Your task to perform on an android device: open the mobile data screen to see how much data has been used Image 0: 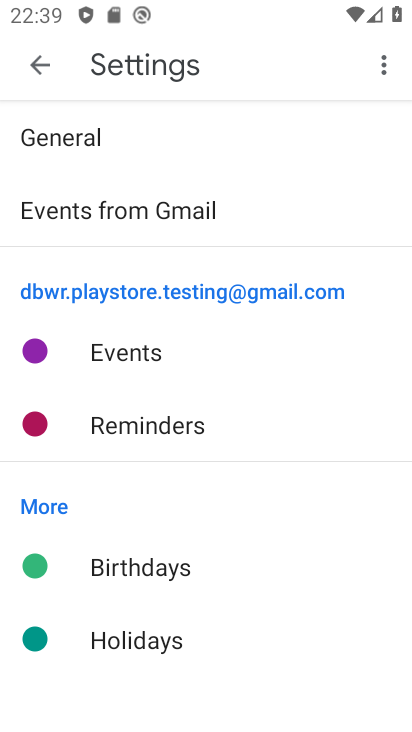
Step 0: press home button
Your task to perform on an android device: open the mobile data screen to see how much data has been used Image 1: 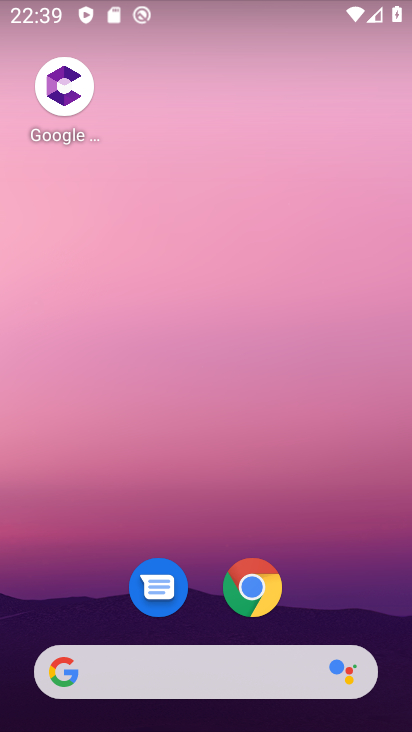
Step 1: drag from (209, 636) to (363, 3)
Your task to perform on an android device: open the mobile data screen to see how much data has been used Image 2: 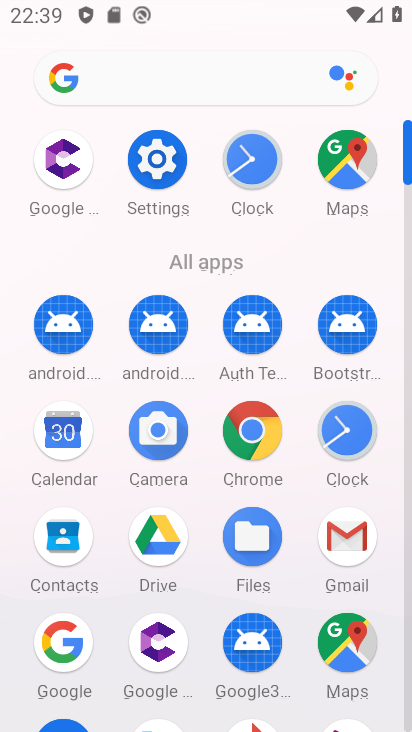
Step 2: click (150, 167)
Your task to perform on an android device: open the mobile data screen to see how much data has been used Image 3: 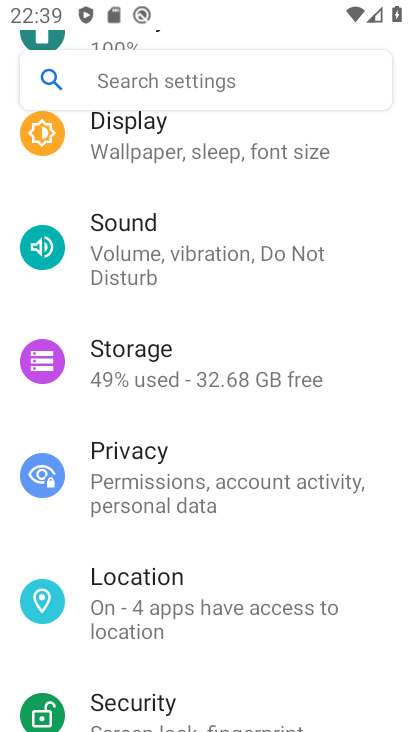
Step 3: drag from (162, 127) to (160, 648)
Your task to perform on an android device: open the mobile data screen to see how much data has been used Image 4: 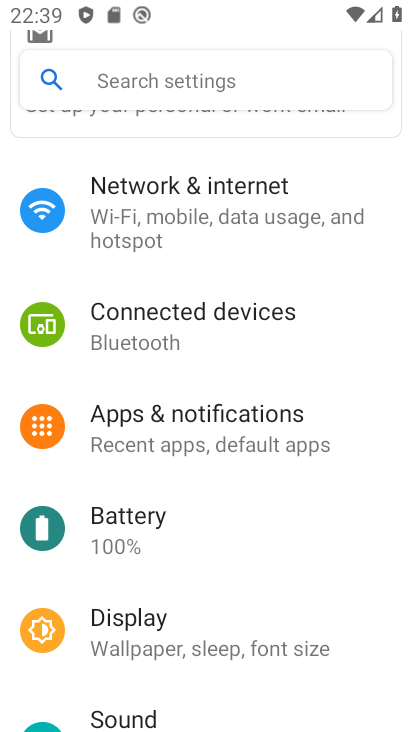
Step 4: click (200, 208)
Your task to perform on an android device: open the mobile data screen to see how much data has been used Image 5: 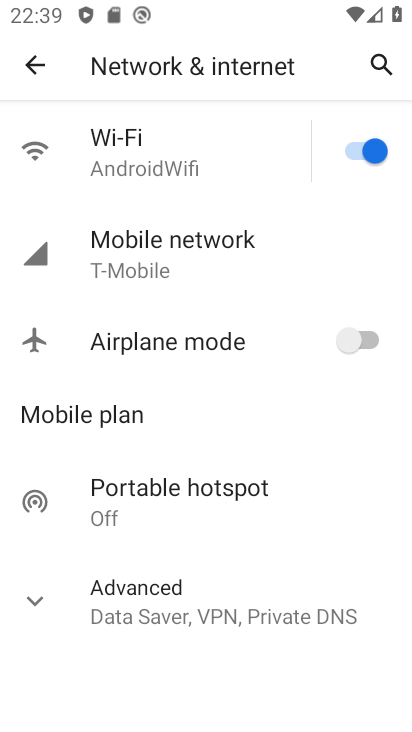
Step 5: click (176, 243)
Your task to perform on an android device: open the mobile data screen to see how much data has been used Image 6: 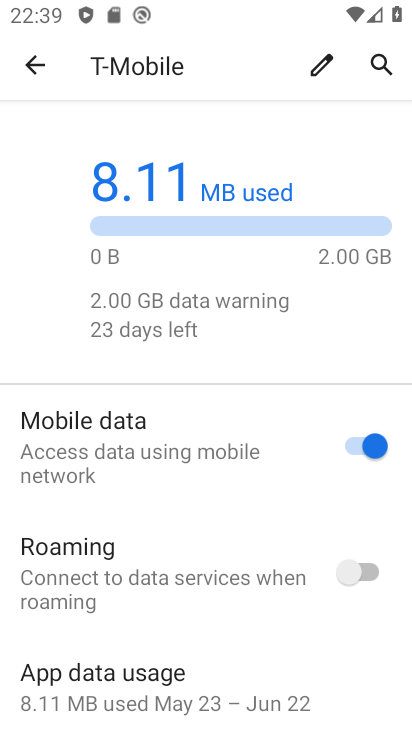
Step 6: task complete